Your task to perform on an android device: toggle wifi Image 0: 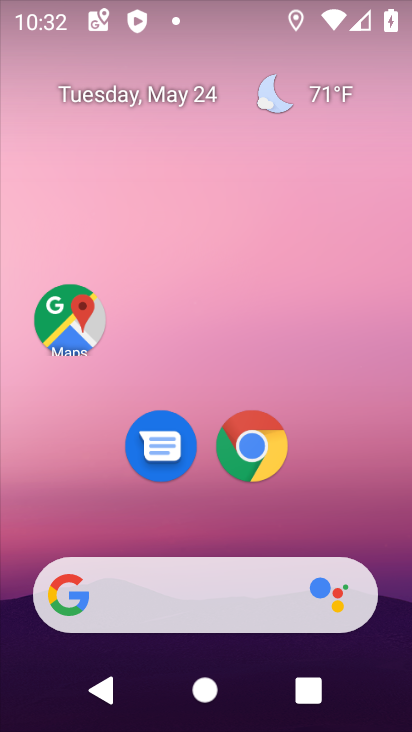
Step 0: drag from (333, 482) to (238, 157)
Your task to perform on an android device: toggle wifi Image 1: 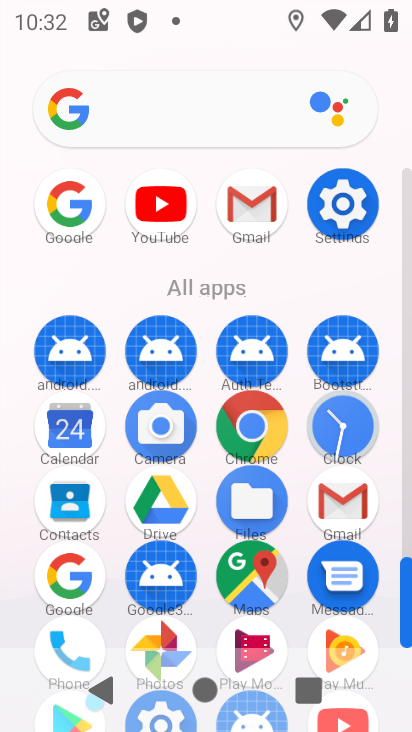
Step 1: click (343, 205)
Your task to perform on an android device: toggle wifi Image 2: 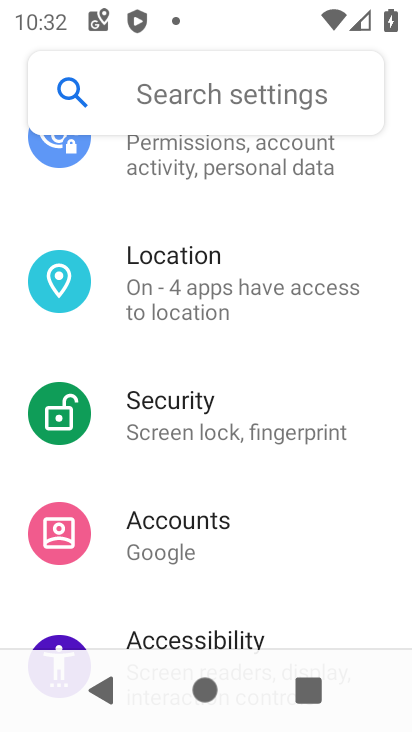
Step 2: drag from (271, 235) to (243, 335)
Your task to perform on an android device: toggle wifi Image 3: 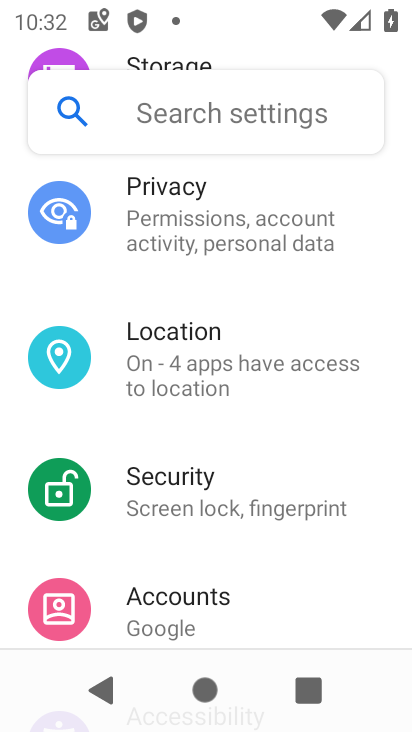
Step 3: drag from (263, 264) to (253, 403)
Your task to perform on an android device: toggle wifi Image 4: 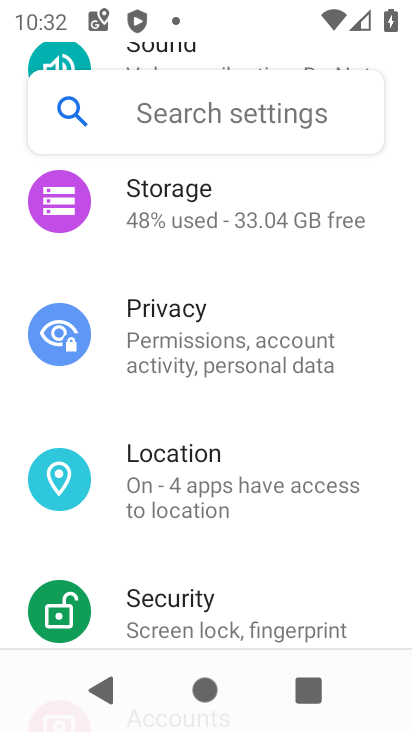
Step 4: drag from (265, 278) to (236, 411)
Your task to perform on an android device: toggle wifi Image 5: 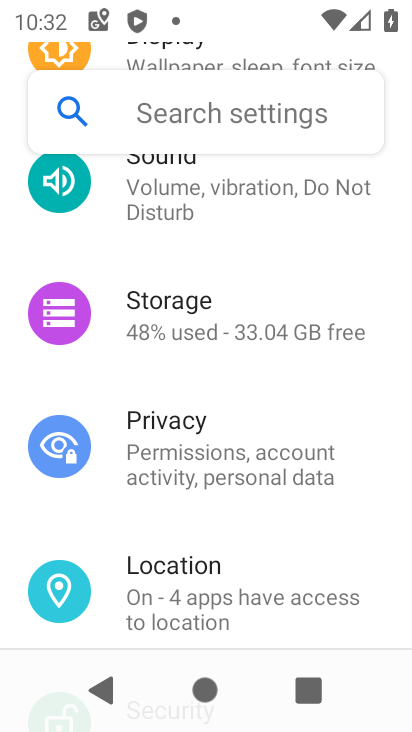
Step 5: drag from (261, 266) to (253, 387)
Your task to perform on an android device: toggle wifi Image 6: 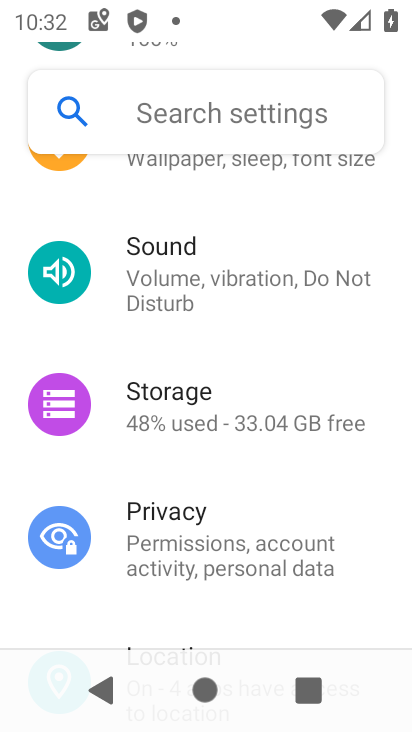
Step 6: drag from (272, 225) to (257, 351)
Your task to perform on an android device: toggle wifi Image 7: 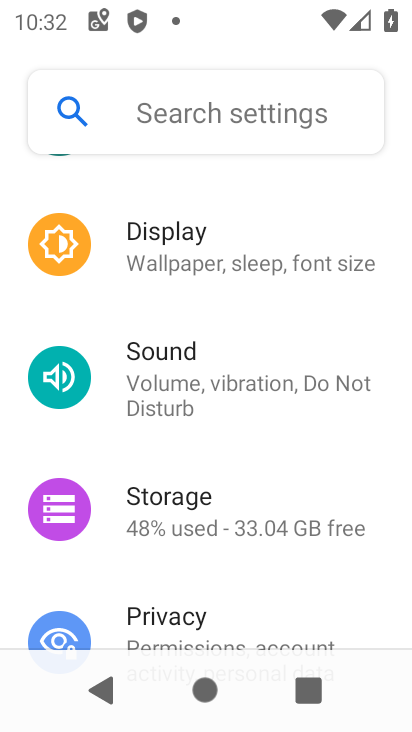
Step 7: drag from (242, 311) to (251, 423)
Your task to perform on an android device: toggle wifi Image 8: 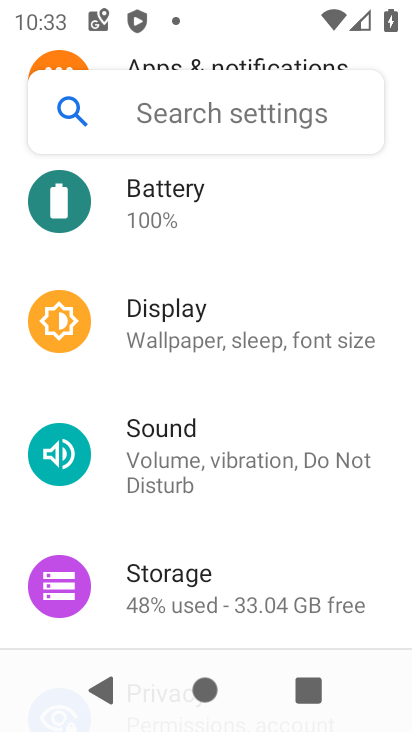
Step 8: drag from (271, 271) to (267, 375)
Your task to perform on an android device: toggle wifi Image 9: 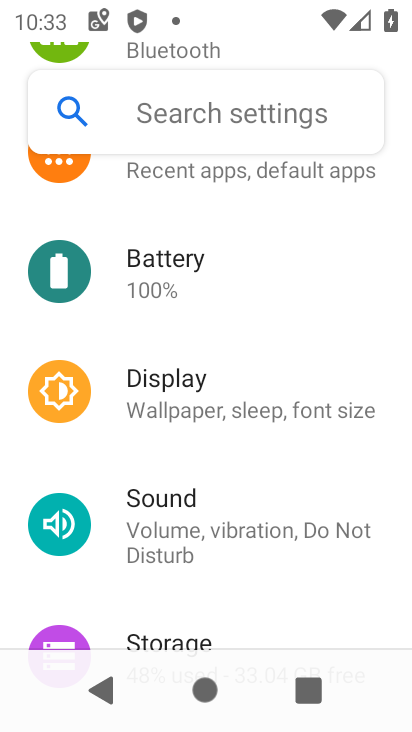
Step 9: drag from (272, 304) to (267, 421)
Your task to perform on an android device: toggle wifi Image 10: 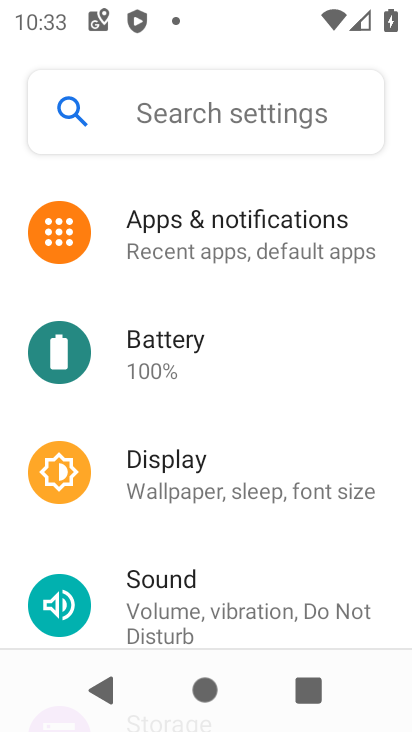
Step 10: drag from (264, 286) to (263, 426)
Your task to perform on an android device: toggle wifi Image 11: 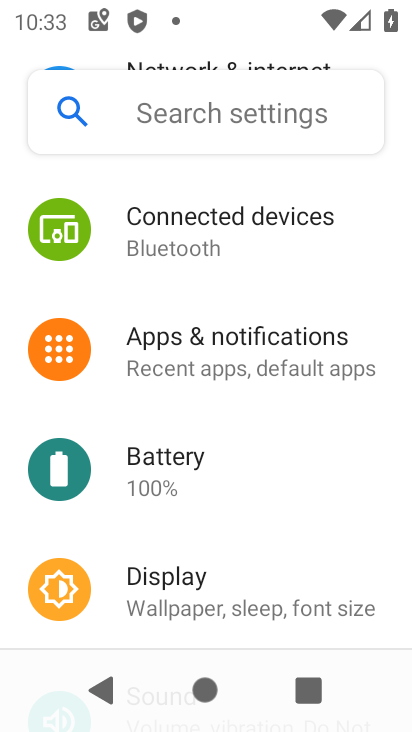
Step 11: drag from (273, 256) to (275, 371)
Your task to perform on an android device: toggle wifi Image 12: 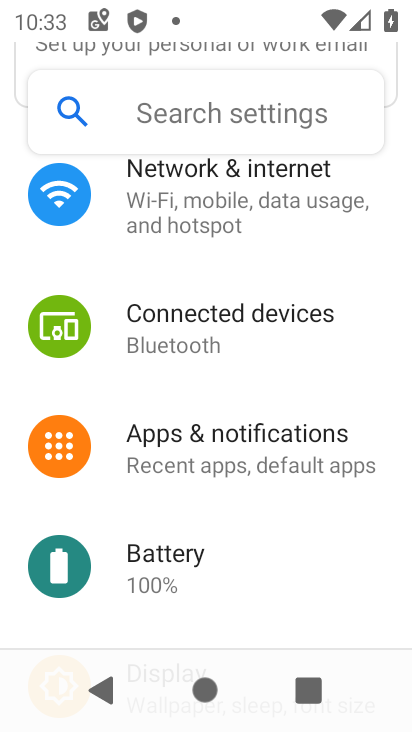
Step 12: drag from (251, 263) to (259, 375)
Your task to perform on an android device: toggle wifi Image 13: 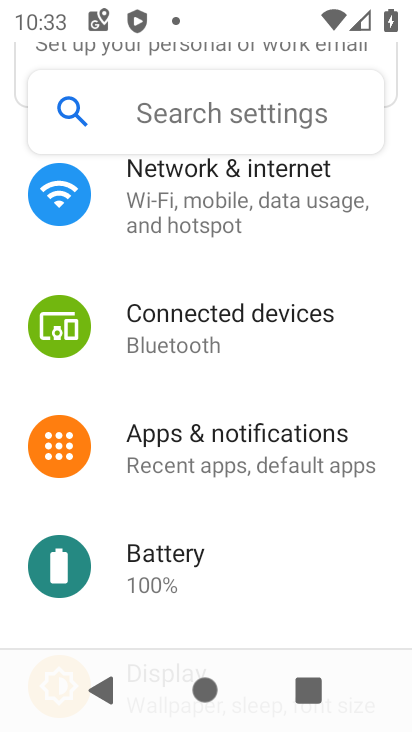
Step 13: drag from (260, 254) to (277, 396)
Your task to perform on an android device: toggle wifi Image 14: 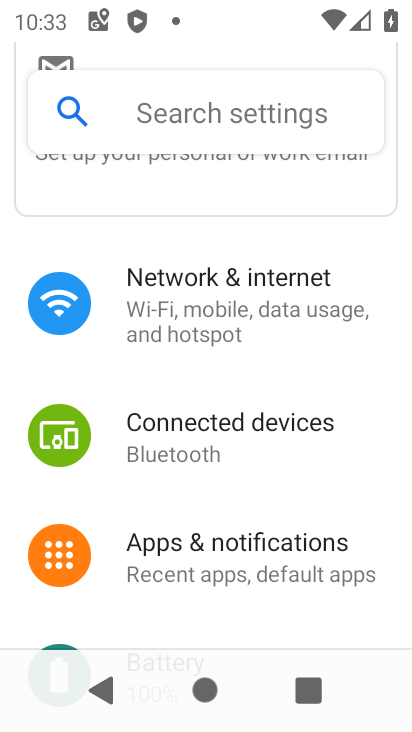
Step 14: click (209, 274)
Your task to perform on an android device: toggle wifi Image 15: 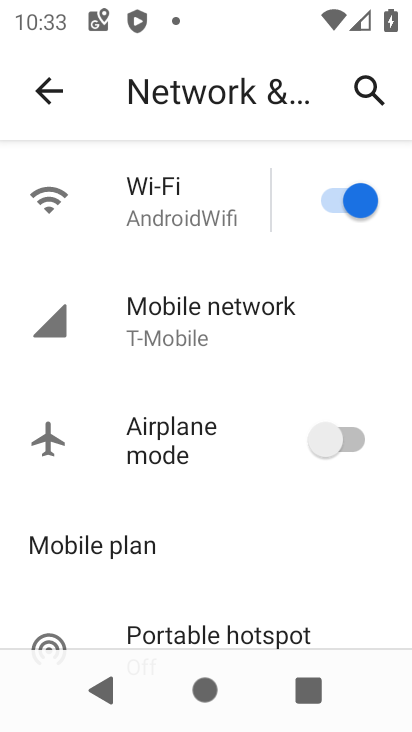
Step 15: click (343, 202)
Your task to perform on an android device: toggle wifi Image 16: 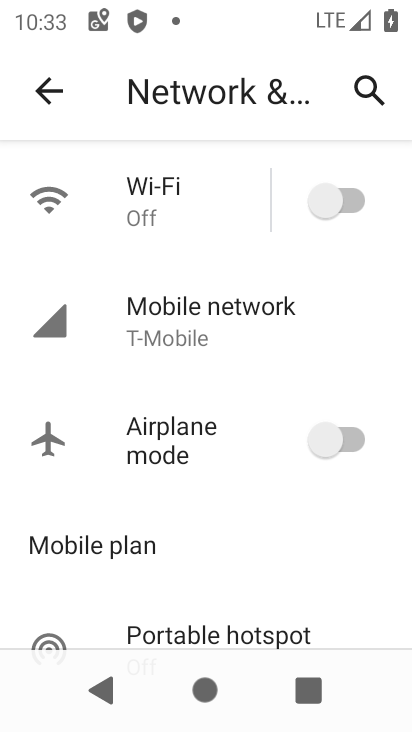
Step 16: task complete